Your task to perform on an android device: uninstall "Chime – Mobile Banking" Image 0: 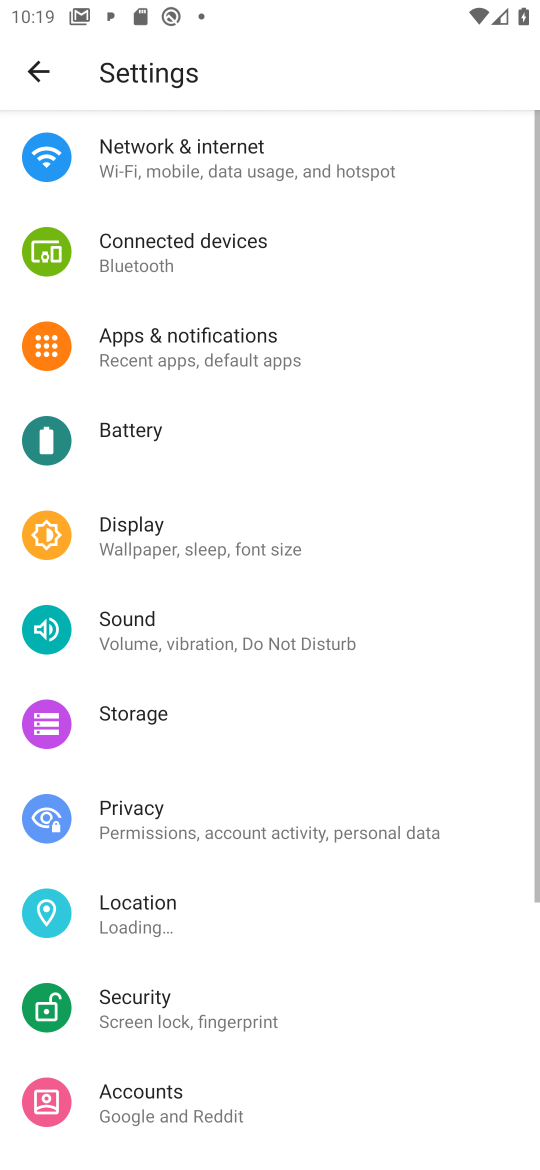
Step 0: press home button
Your task to perform on an android device: uninstall "Chime – Mobile Banking" Image 1: 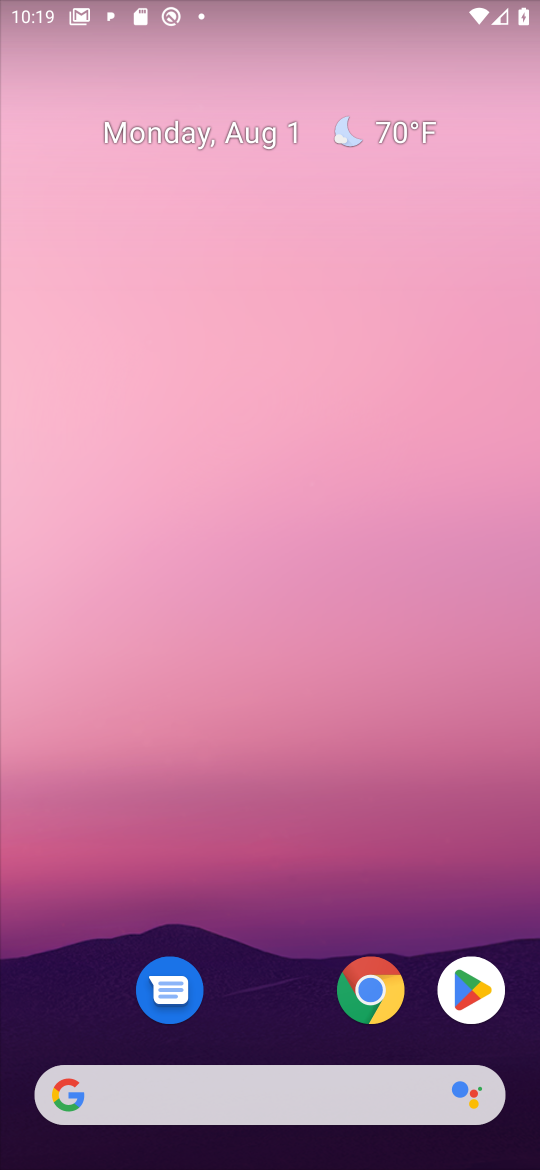
Step 1: click (452, 971)
Your task to perform on an android device: uninstall "Chime – Mobile Banking" Image 2: 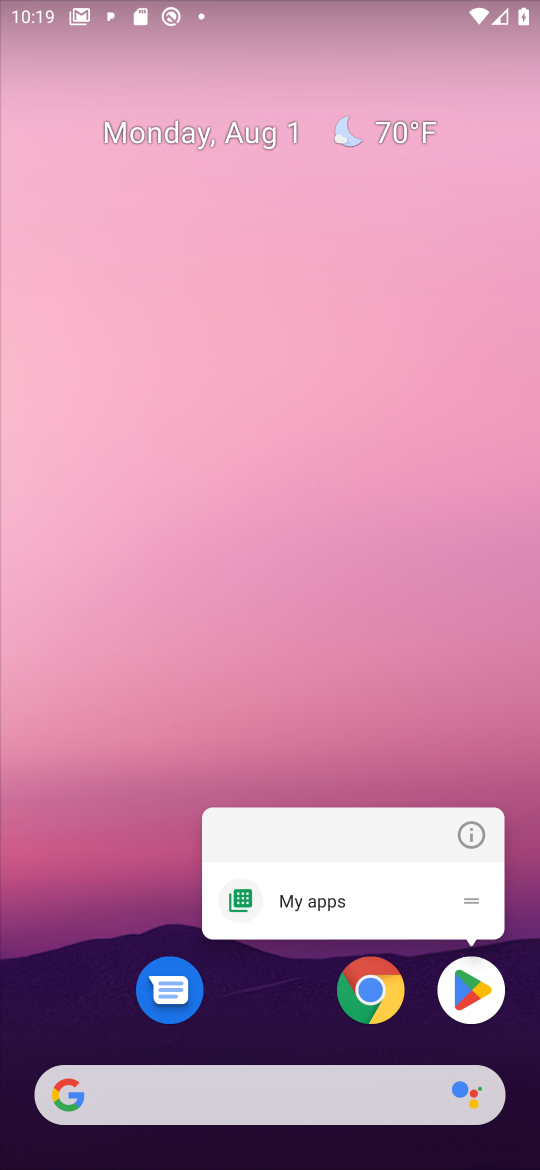
Step 2: click (448, 983)
Your task to perform on an android device: uninstall "Chime – Mobile Banking" Image 3: 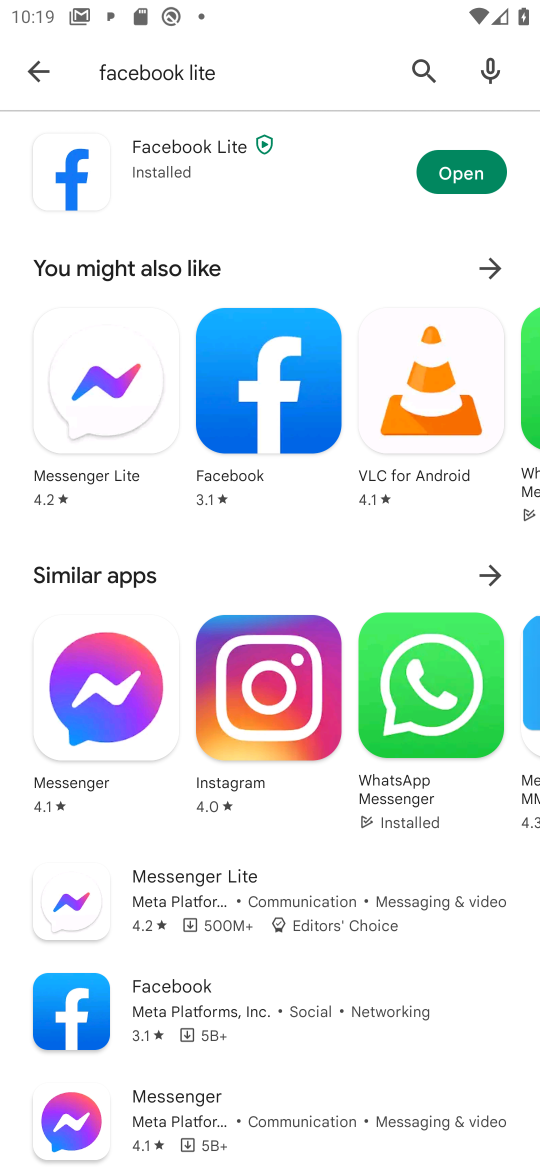
Step 3: click (419, 62)
Your task to perform on an android device: uninstall "Chime – Mobile Banking" Image 4: 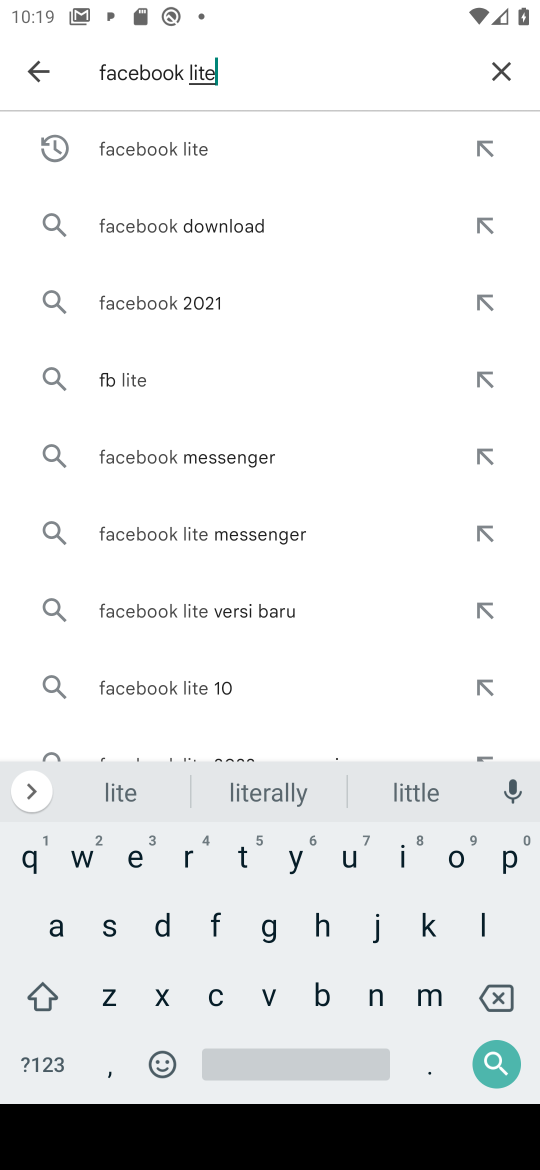
Step 4: click (506, 65)
Your task to perform on an android device: uninstall "Chime – Mobile Banking" Image 5: 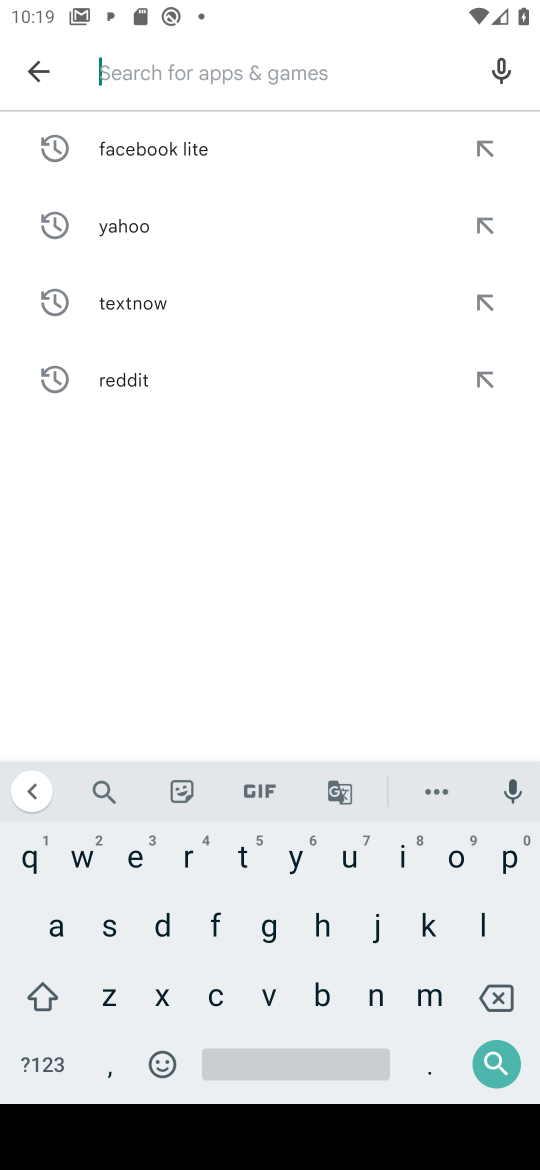
Step 5: click (215, 996)
Your task to perform on an android device: uninstall "Chime – Mobile Banking" Image 6: 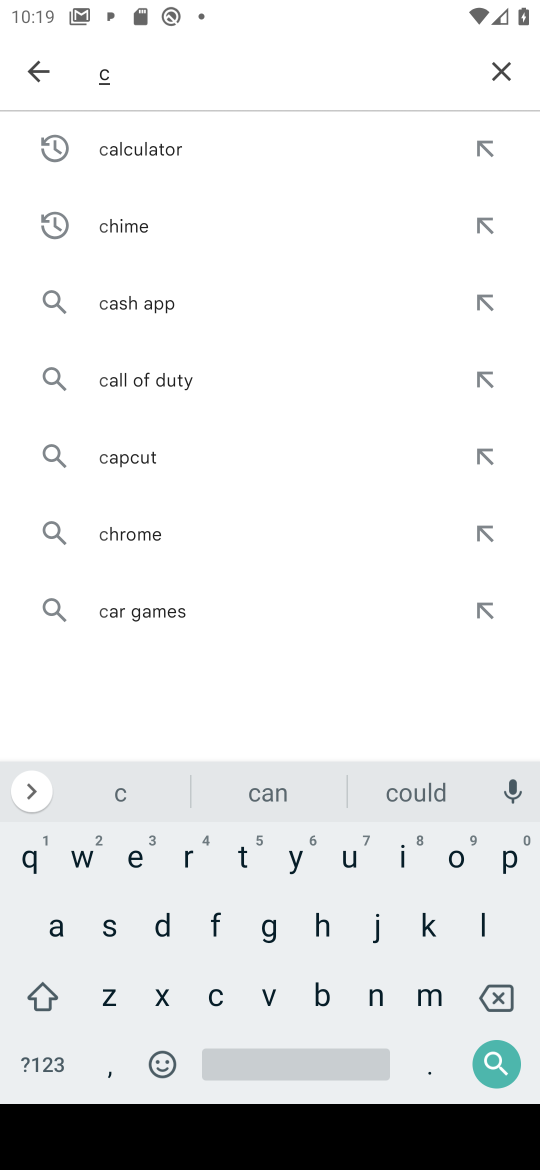
Step 6: click (324, 934)
Your task to perform on an android device: uninstall "Chime – Mobile Banking" Image 7: 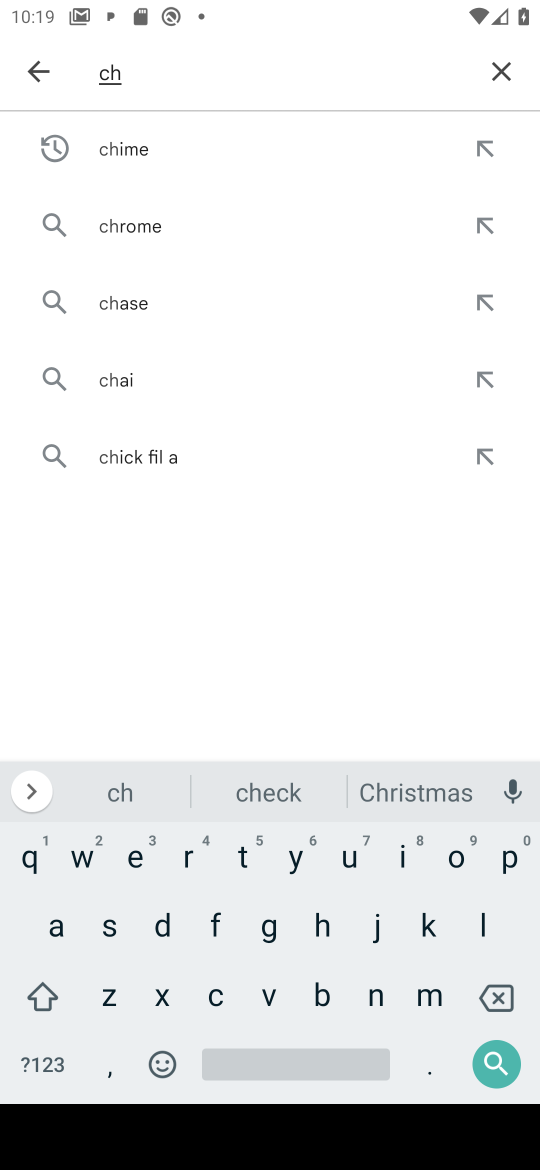
Step 7: click (399, 856)
Your task to perform on an android device: uninstall "Chime – Mobile Banking" Image 8: 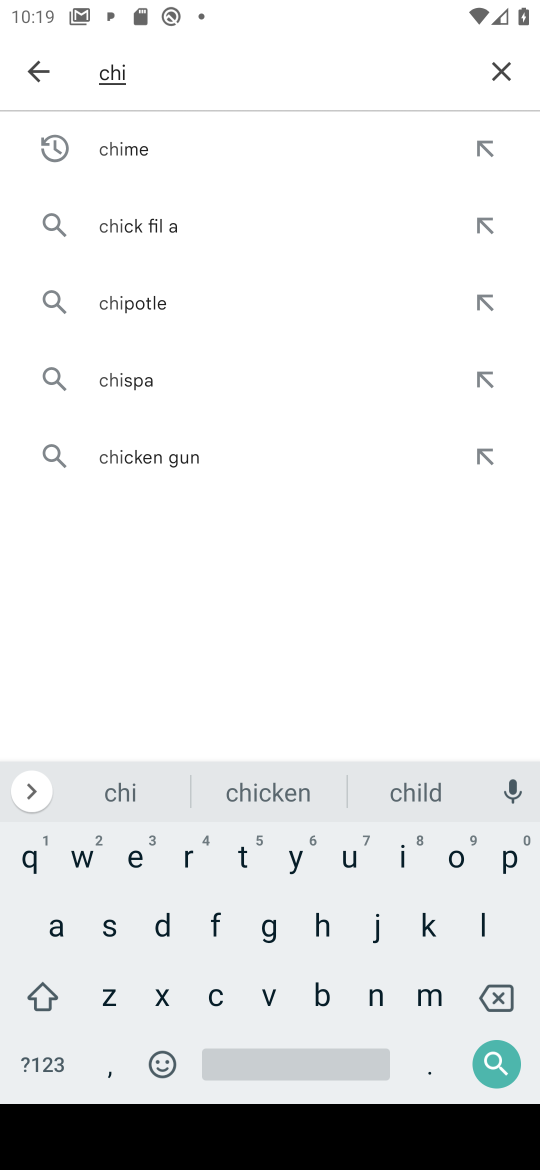
Step 8: click (115, 149)
Your task to perform on an android device: uninstall "Chime – Mobile Banking" Image 9: 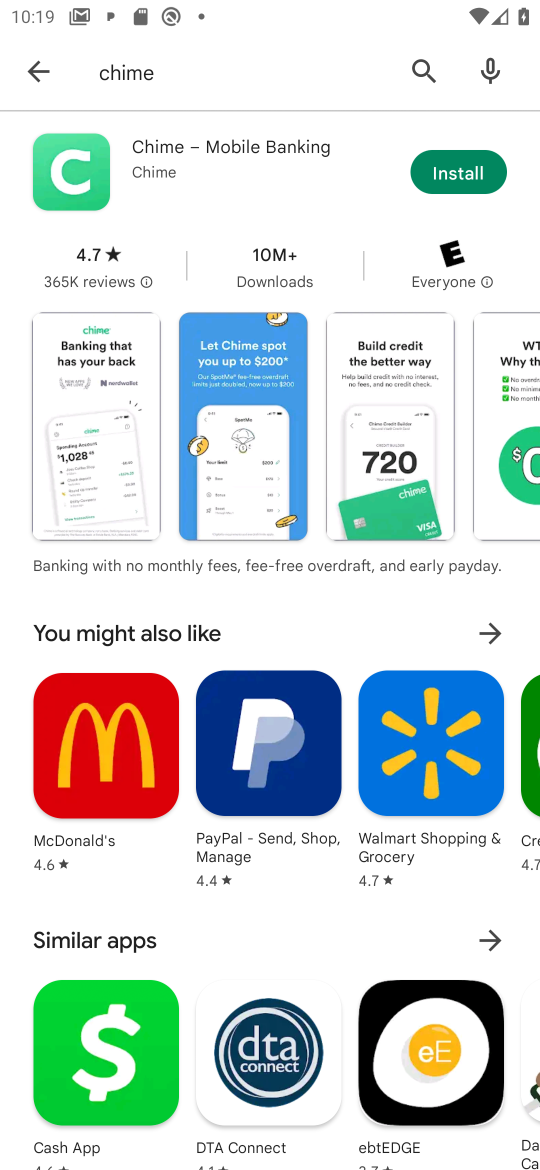
Step 9: click (466, 179)
Your task to perform on an android device: uninstall "Chime – Mobile Banking" Image 10: 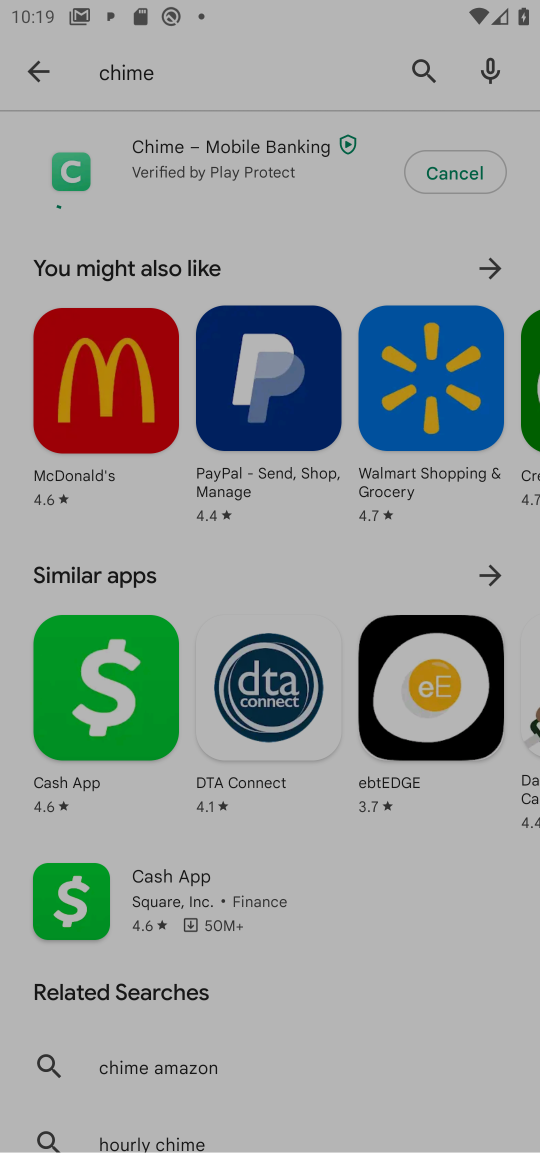
Step 10: click (466, 179)
Your task to perform on an android device: uninstall "Chime – Mobile Banking" Image 11: 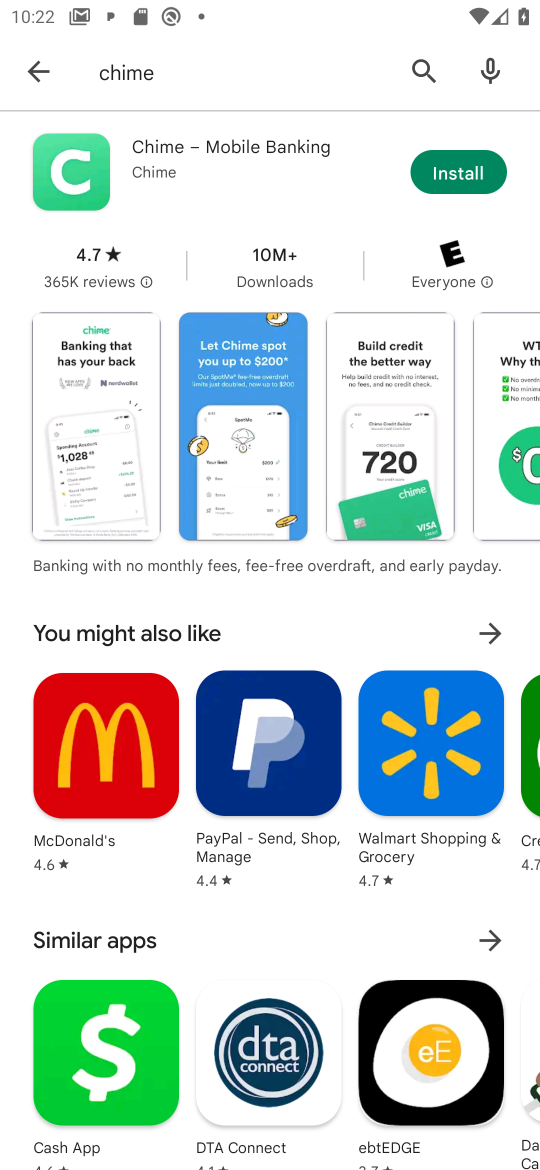
Step 11: task complete